Your task to perform on an android device: Open the map Image 0: 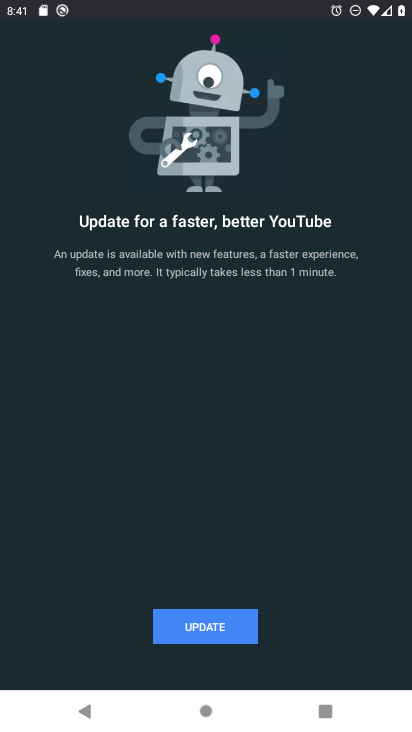
Step 0: press home button
Your task to perform on an android device: Open the map Image 1: 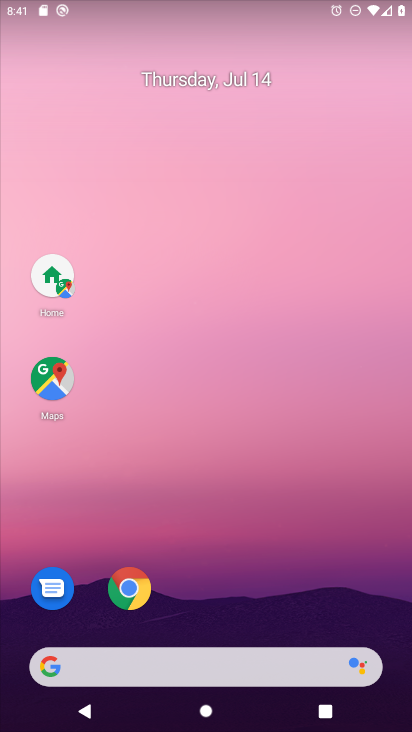
Step 1: click (58, 369)
Your task to perform on an android device: Open the map Image 2: 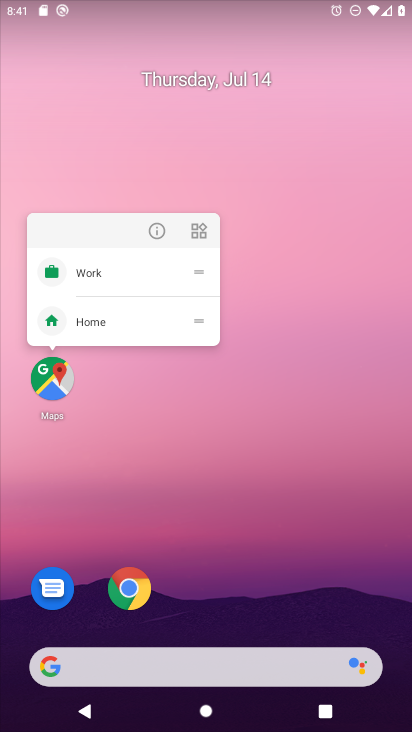
Step 2: click (32, 403)
Your task to perform on an android device: Open the map Image 3: 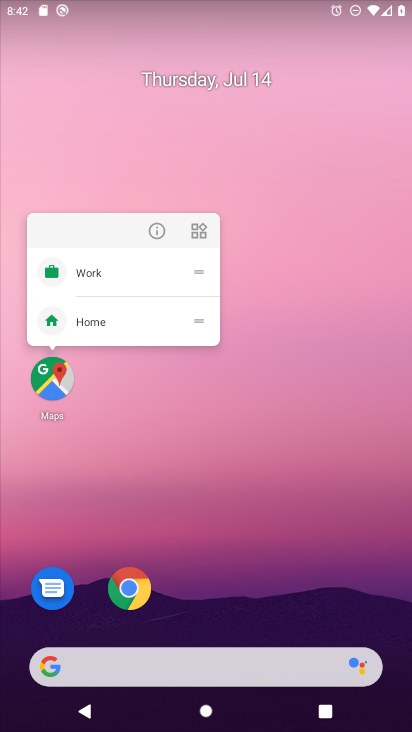
Step 3: click (46, 386)
Your task to perform on an android device: Open the map Image 4: 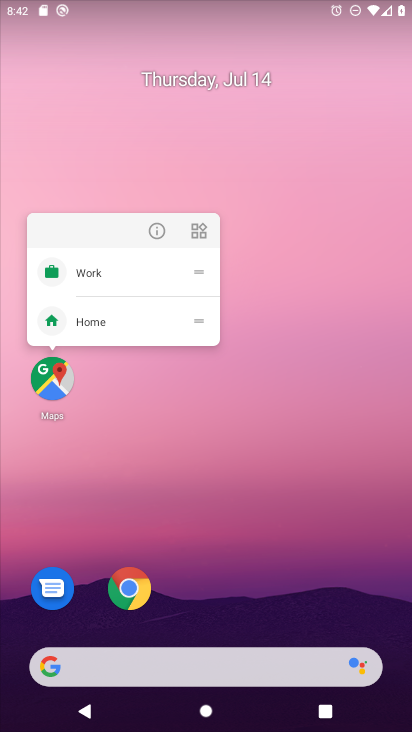
Step 4: click (46, 373)
Your task to perform on an android device: Open the map Image 5: 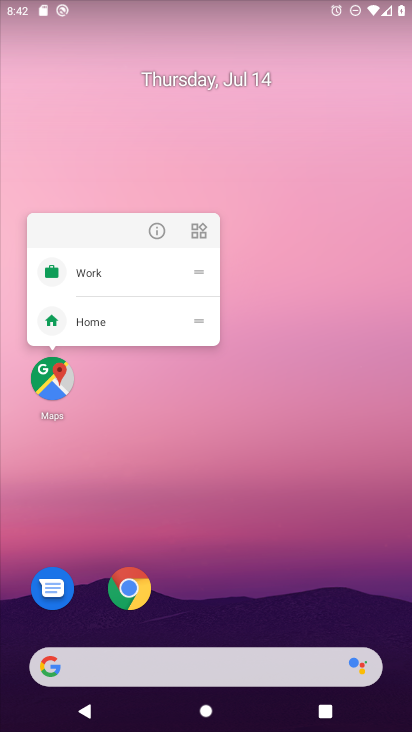
Step 5: click (47, 382)
Your task to perform on an android device: Open the map Image 6: 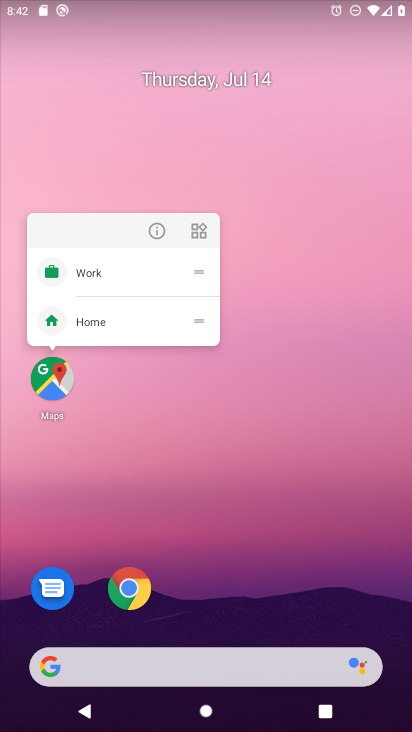
Step 6: click (55, 383)
Your task to perform on an android device: Open the map Image 7: 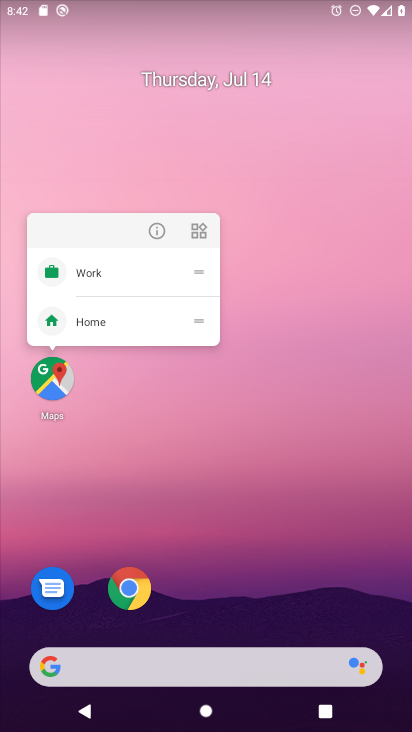
Step 7: task complete